Your task to perform on an android device: create a new album in the google photos Image 0: 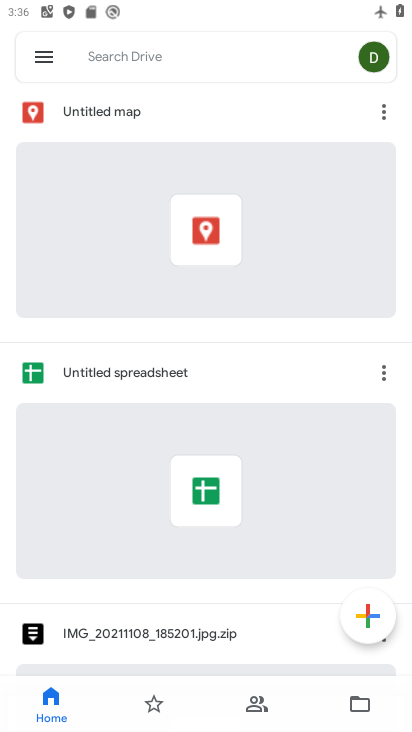
Step 0: press home button
Your task to perform on an android device: create a new album in the google photos Image 1: 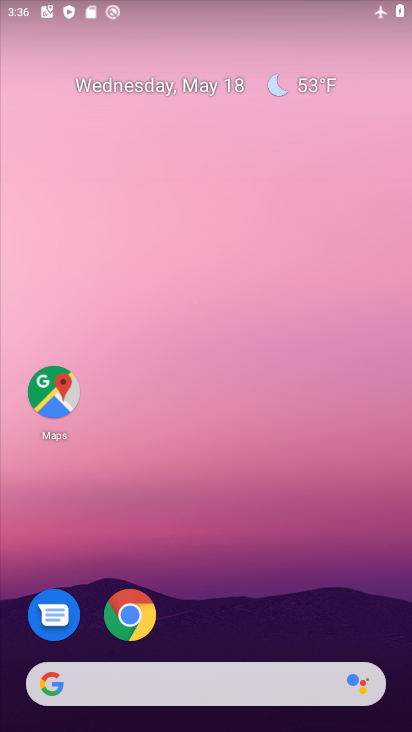
Step 1: drag from (267, 607) to (319, 81)
Your task to perform on an android device: create a new album in the google photos Image 2: 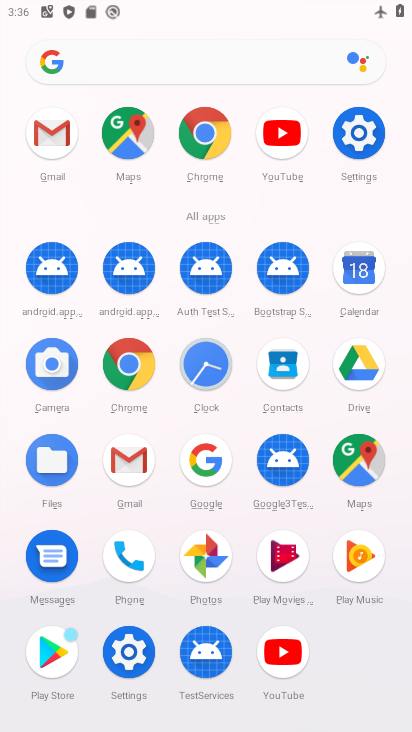
Step 2: click (214, 551)
Your task to perform on an android device: create a new album in the google photos Image 3: 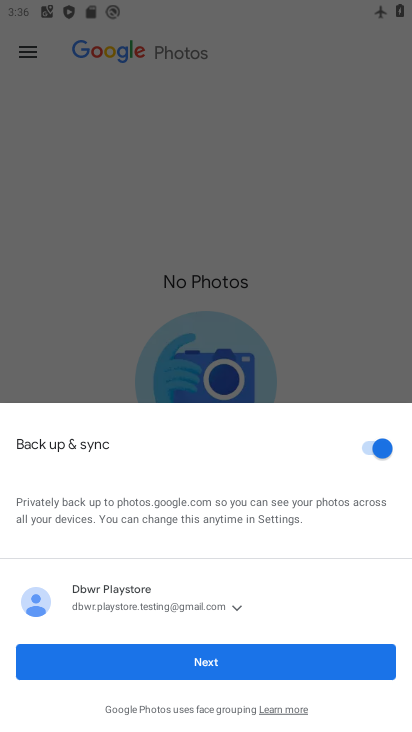
Step 3: click (289, 659)
Your task to perform on an android device: create a new album in the google photos Image 4: 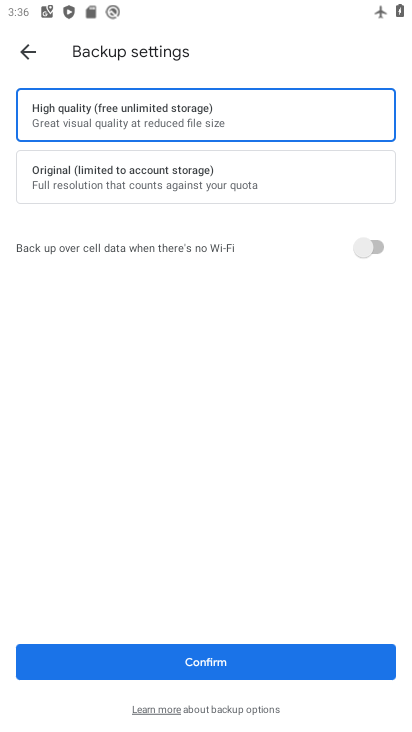
Step 4: click (249, 665)
Your task to perform on an android device: create a new album in the google photos Image 5: 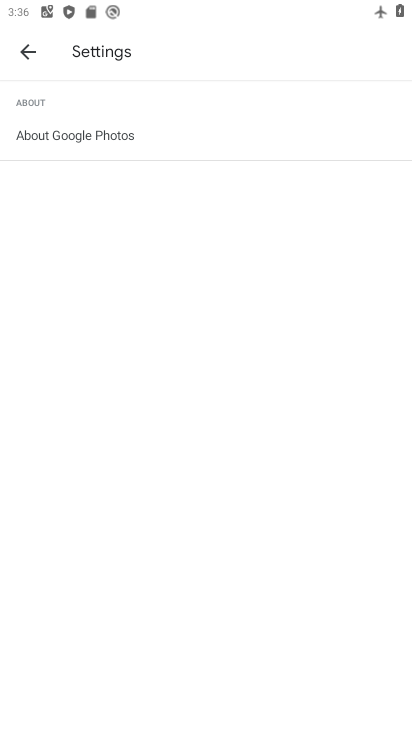
Step 5: click (21, 41)
Your task to perform on an android device: create a new album in the google photos Image 6: 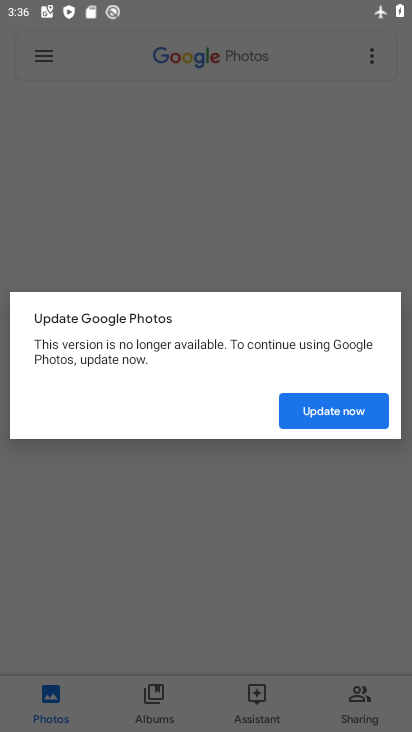
Step 6: click (332, 415)
Your task to perform on an android device: create a new album in the google photos Image 7: 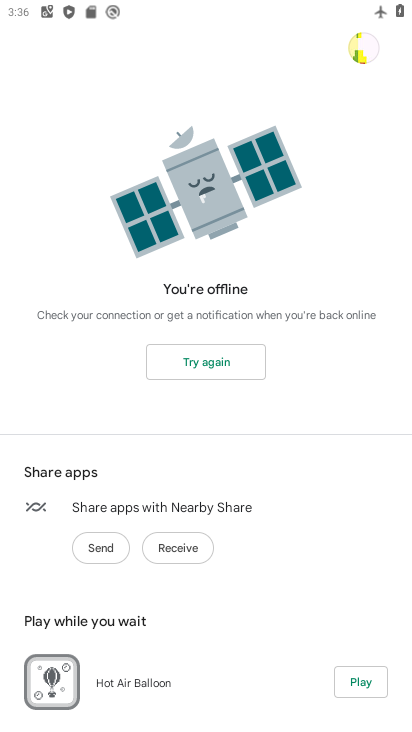
Step 7: task complete